Your task to perform on an android device: set default search engine in the chrome app Image 0: 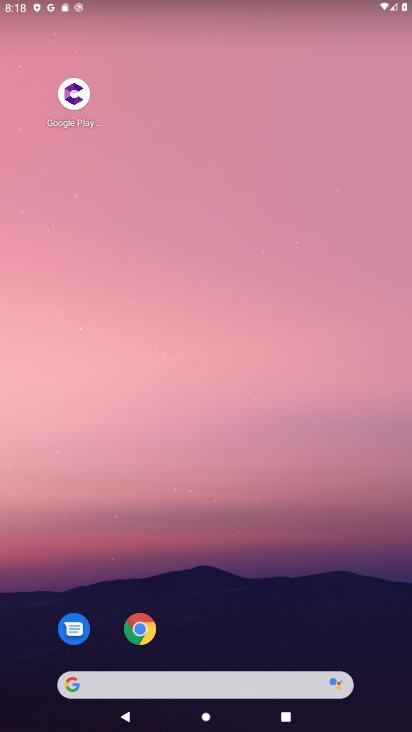
Step 0: click (136, 630)
Your task to perform on an android device: set default search engine in the chrome app Image 1: 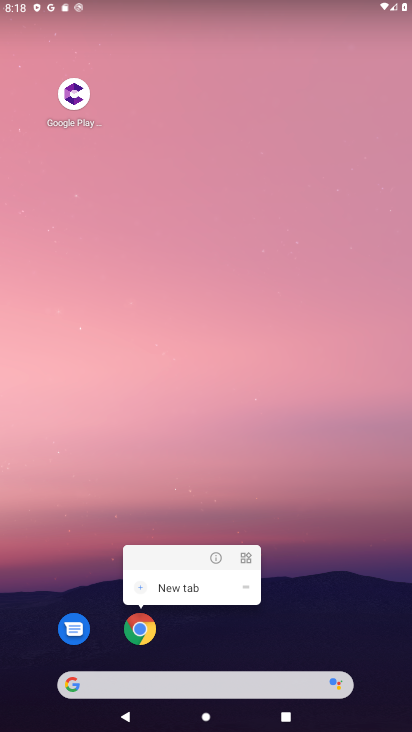
Step 1: click (136, 630)
Your task to perform on an android device: set default search engine in the chrome app Image 2: 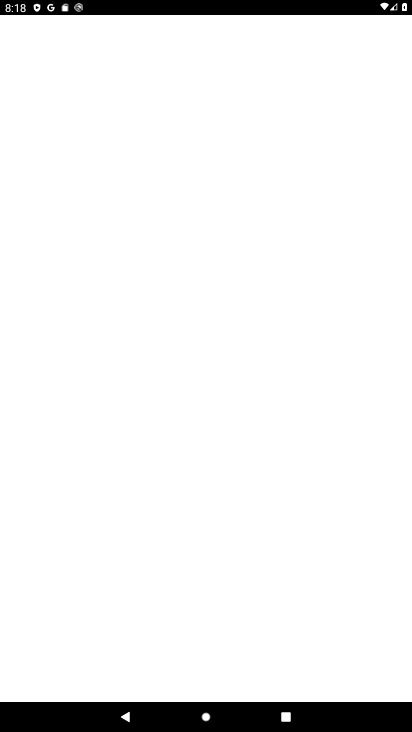
Step 2: click (136, 630)
Your task to perform on an android device: set default search engine in the chrome app Image 3: 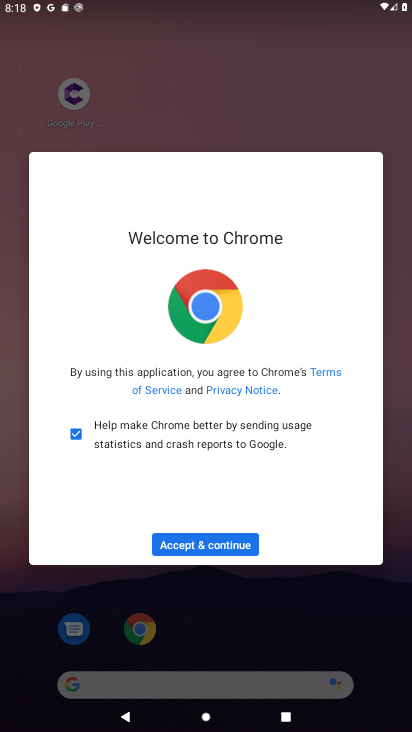
Step 3: click (220, 545)
Your task to perform on an android device: set default search engine in the chrome app Image 4: 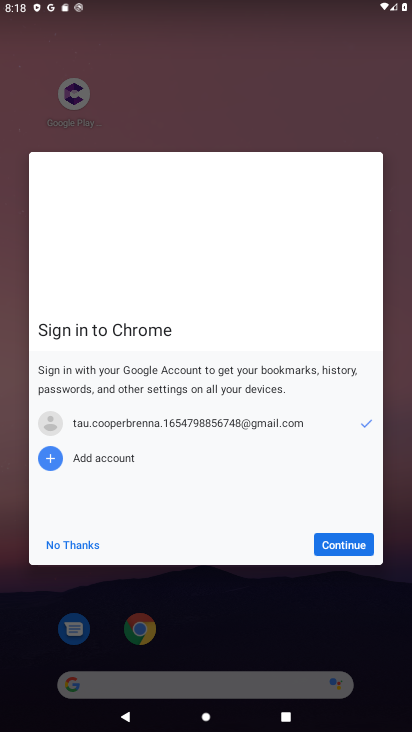
Step 4: click (330, 549)
Your task to perform on an android device: set default search engine in the chrome app Image 5: 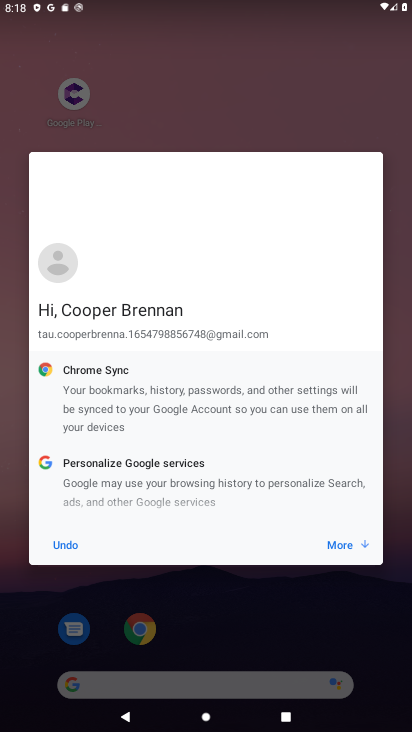
Step 5: click (330, 549)
Your task to perform on an android device: set default search engine in the chrome app Image 6: 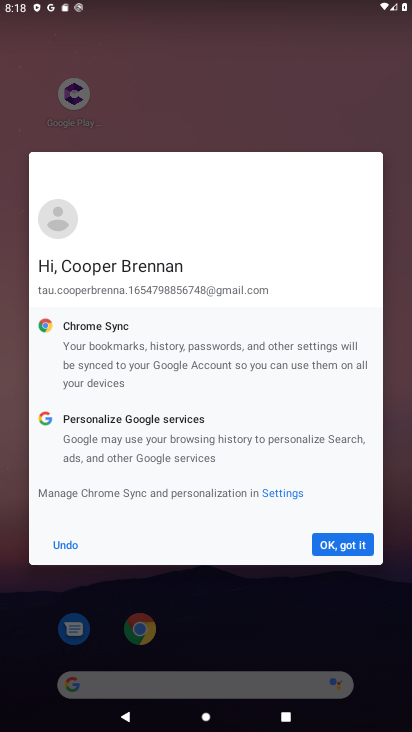
Step 6: click (330, 549)
Your task to perform on an android device: set default search engine in the chrome app Image 7: 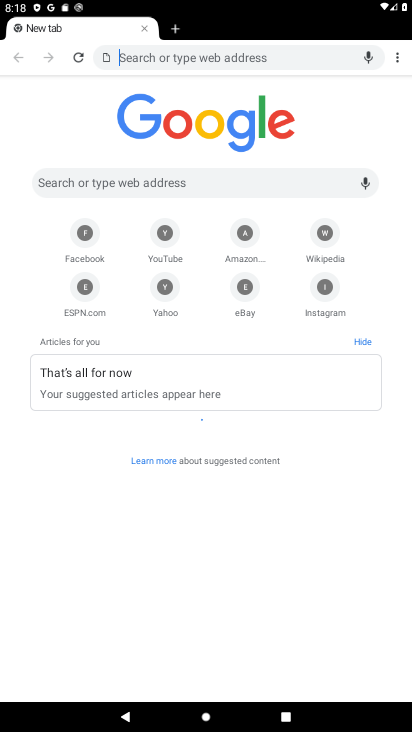
Step 7: click (402, 57)
Your task to perform on an android device: set default search engine in the chrome app Image 8: 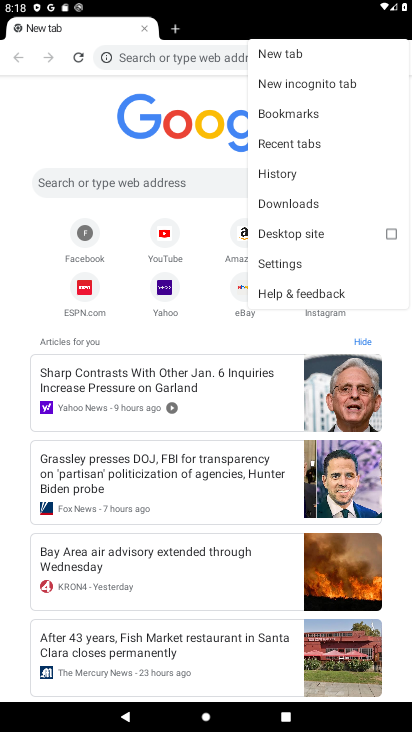
Step 8: click (292, 261)
Your task to perform on an android device: set default search engine in the chrome app Image 9: 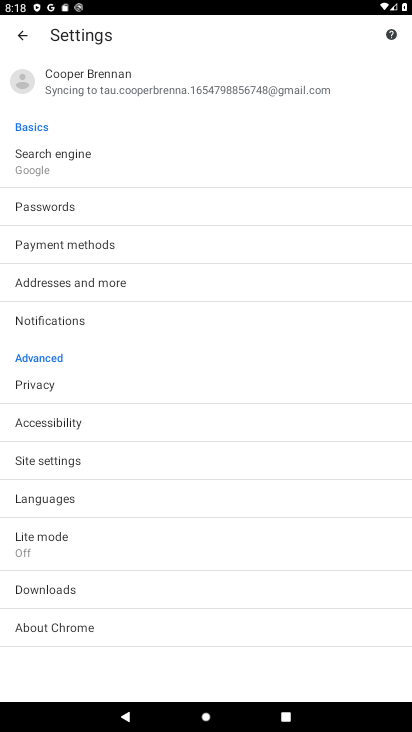
Step 9: click (59, 163)
Your task to perform on an android device: set default search engine in the chrome app Image 10: 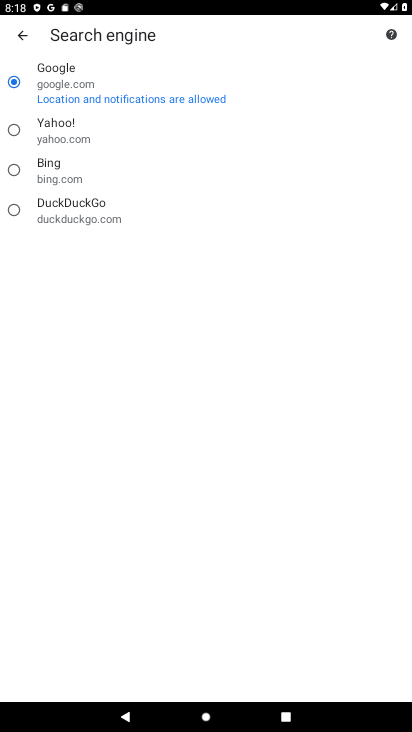
Step 10: click (57, 129)
Your task to perform on an android device: set default search engine in the chrome app Image 11: 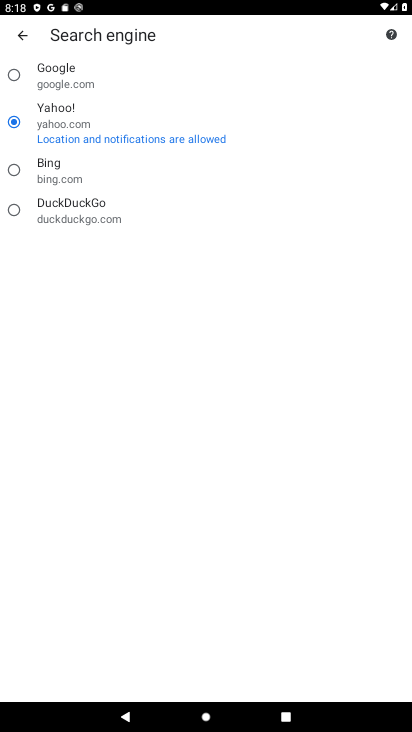
Step 11: task complete